Your task to perform on an android device: Go to privacy settings Image 0: 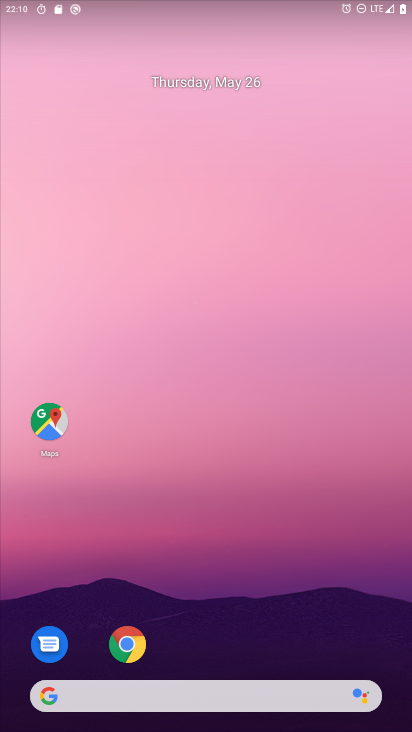
Step 0: click (236, 265)
Your task to perform on an android device: Go to privacy settings Image 1: 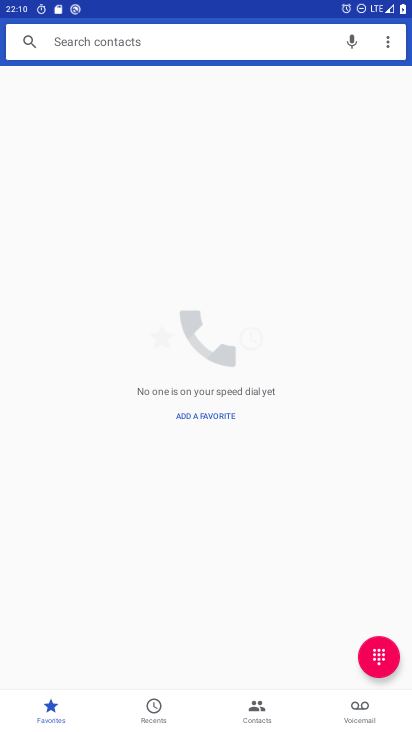
Step 1: press home button
Your task to perform on an android device: Go to privacy settings Image 2: 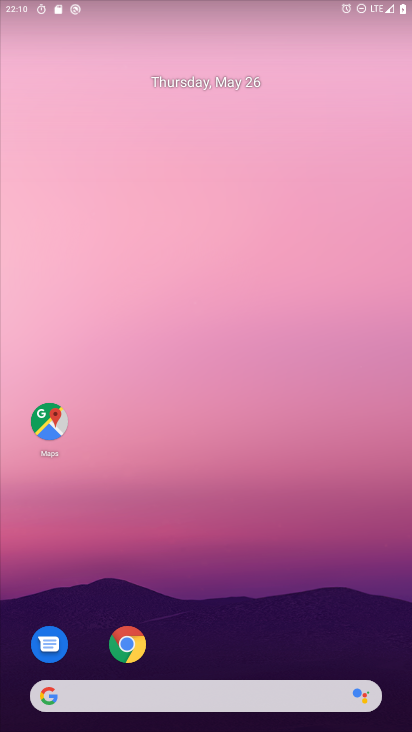
Step 2: drag from (245, 660) to (295, 200)
Your task to perform on an android device: Go to privacy settings Image 3: 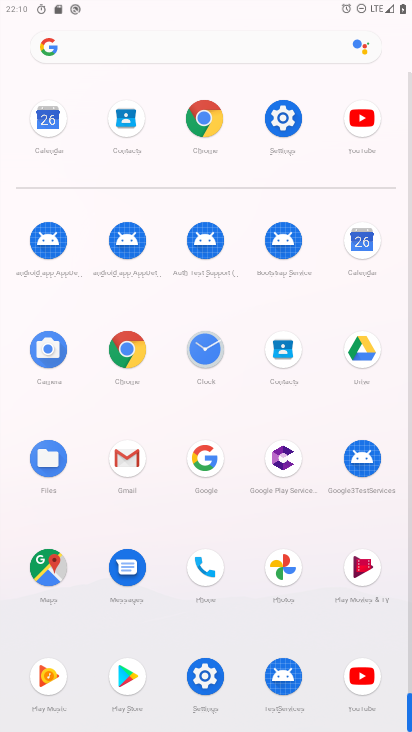
Step 3: click (283, 111)
Your task to perform on an android device: Go to privacy settings Image 4: 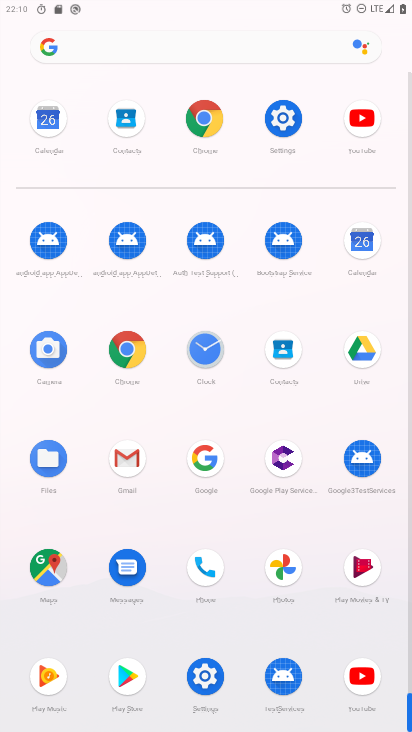
Step 4: click (282, 110)
Your task to perform on an android device: Go to privacy settings Image 5: 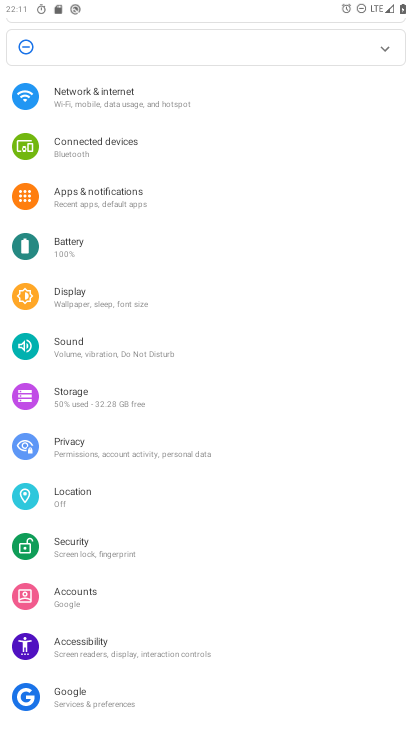
Step 5: click (111, 449)
Your task to perform on an android device: Go to privacy settings Image 6: 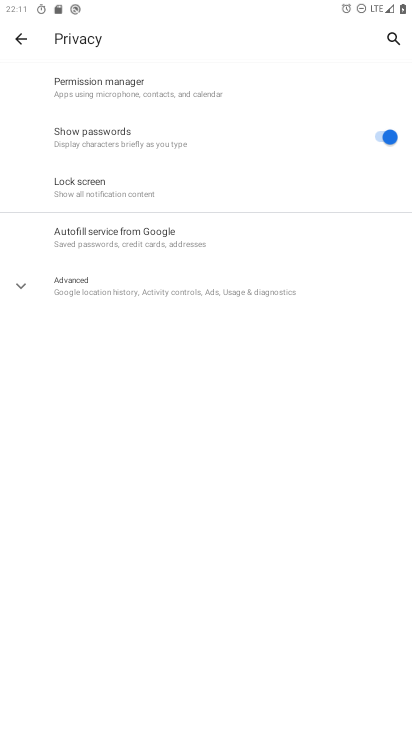
Step 6: task complete